Your task to perform on an android device: turn off location history Image 0: 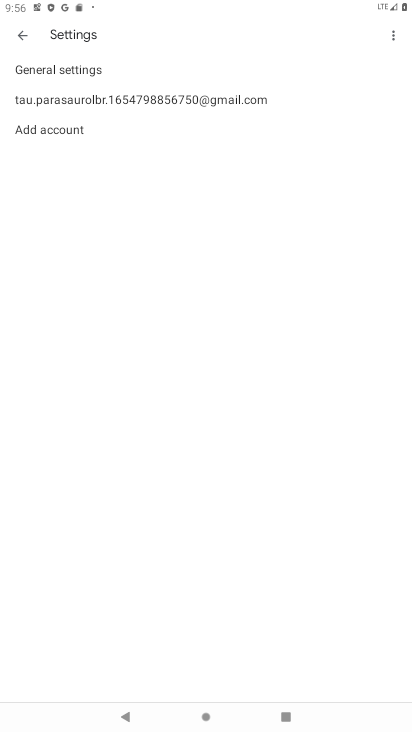
Step 0: press home button
Your task to perform on an android device: turn off location history Image 1: 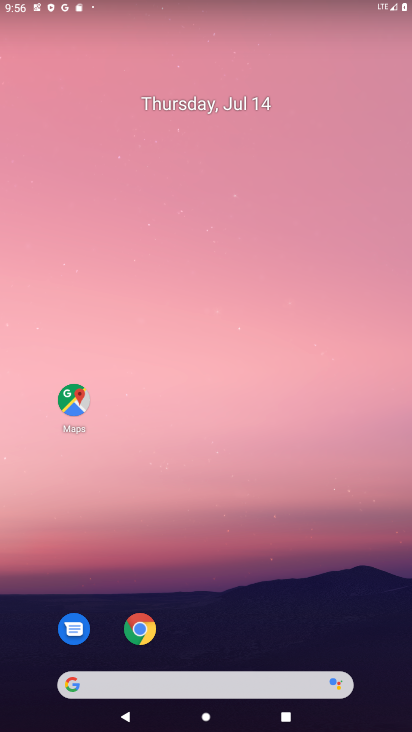
Step 1: drag from (52, 594) to (355, 73)
Your task to perform on an android device: turn off location history Image 2: 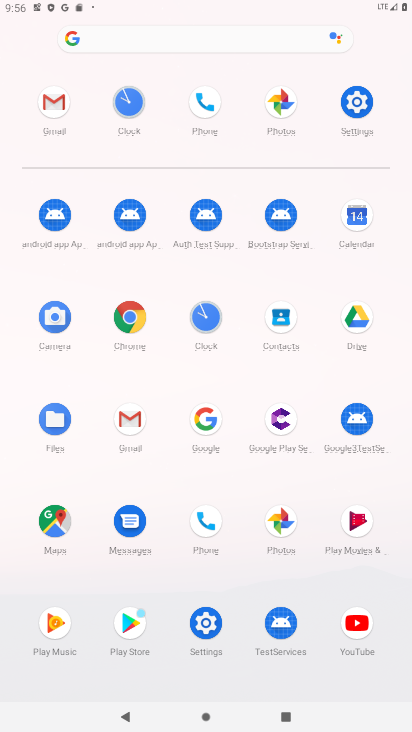
Step 2: click (367, 109)
Your task to perform on an android device: turn off location history Image 3: 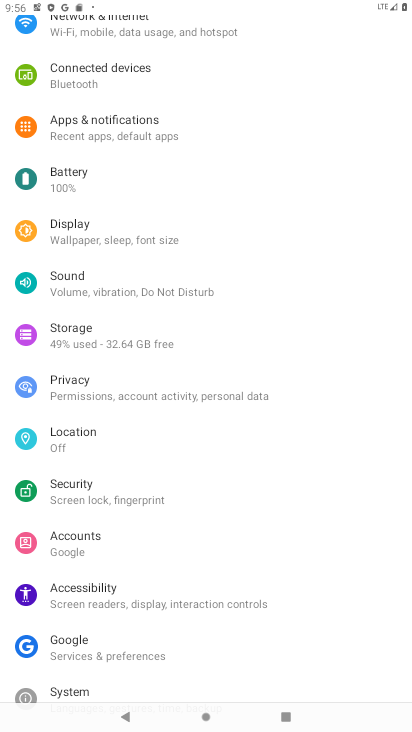
Step 3: click (97, 429)
Your task to perform on an android device: turn off location history Image 4: 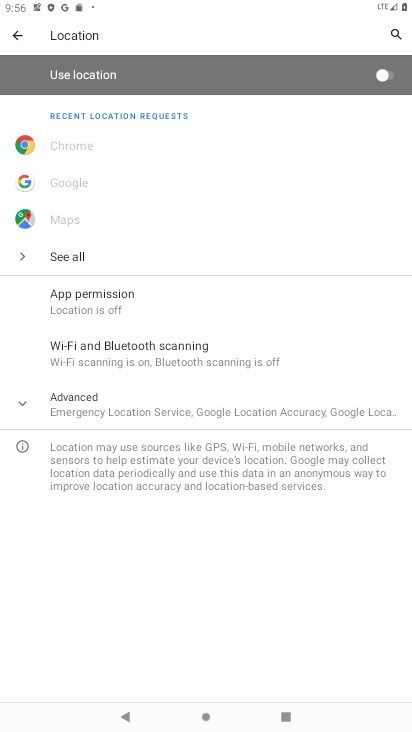
Step 4: task complete